Your task to perform on an android device: uninstall "Chime – Mobile Banking" Image 0: 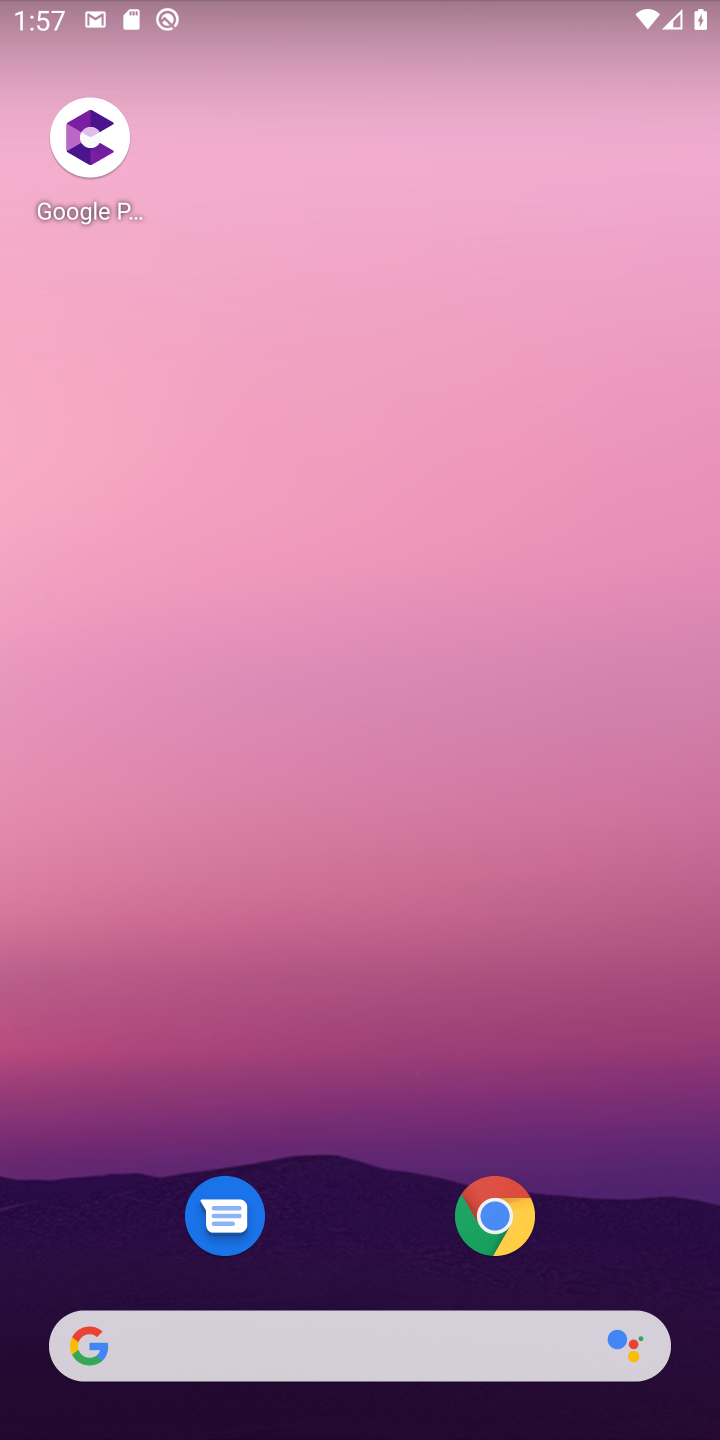
Step 0: drag from (386, 1223) to (629, 113)
Your task to perform on an android device: uninstall "Chime – Mobile Banking" Image 1: 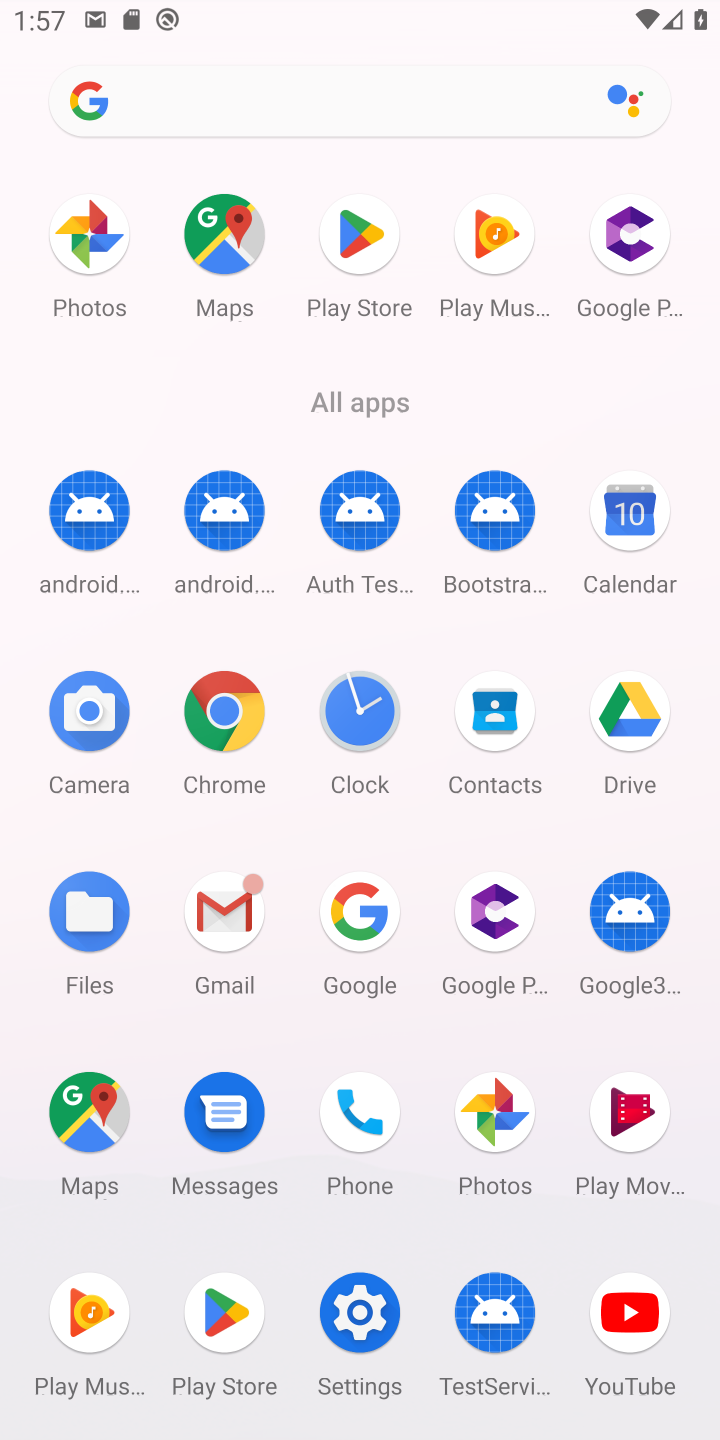
Step 1: click (224, 1313)
Your task to perform on an android device: uninstall "Chime – Mobile Banking" Image 2: 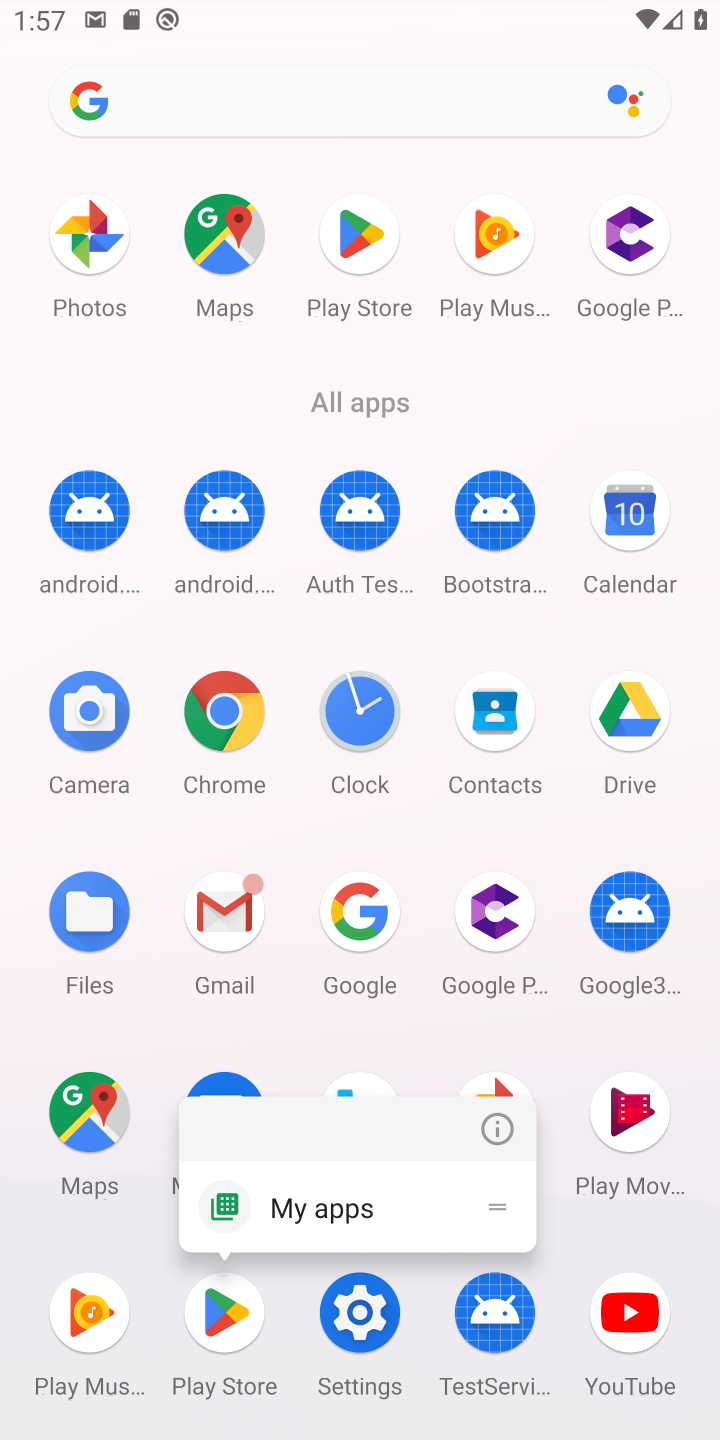
Step 2: click (225, 1329)
Your task to perform on an android device: uninstall "Chime – Mobile Banking" Image 3: 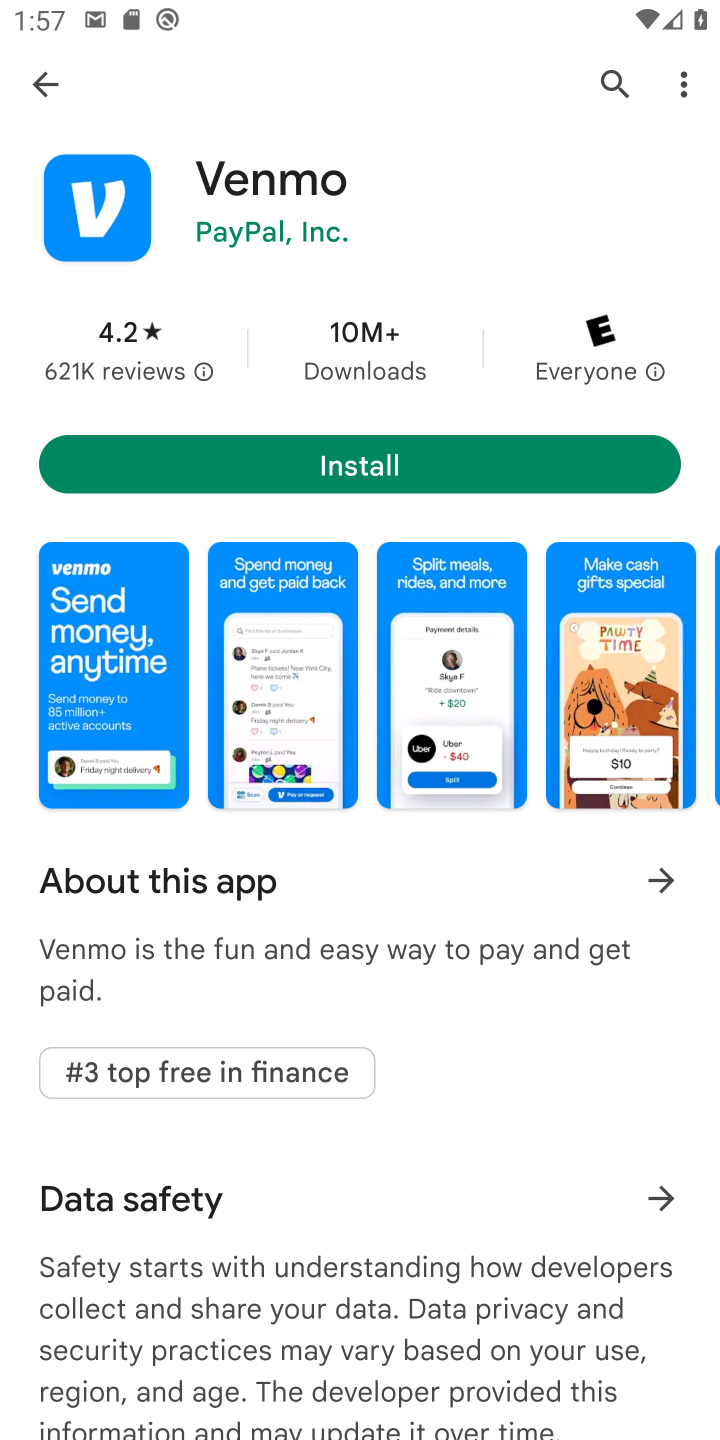
Step 3: click (32, 73)
Your task to perform on an android device: uninstall "Chime – Mobile Banking" Image 4: 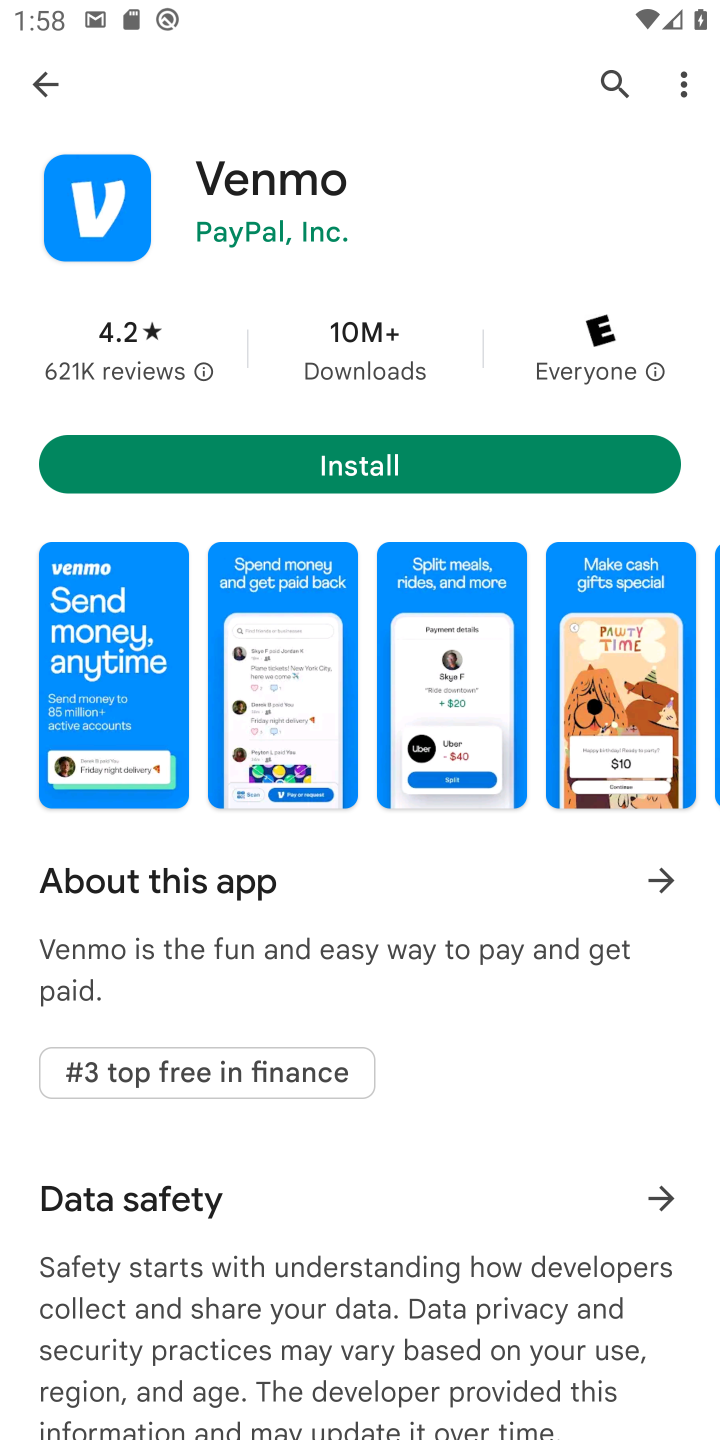
Step 4: task complete